Your task to perform on an android device: toggle translation in the chrome app Image 0: 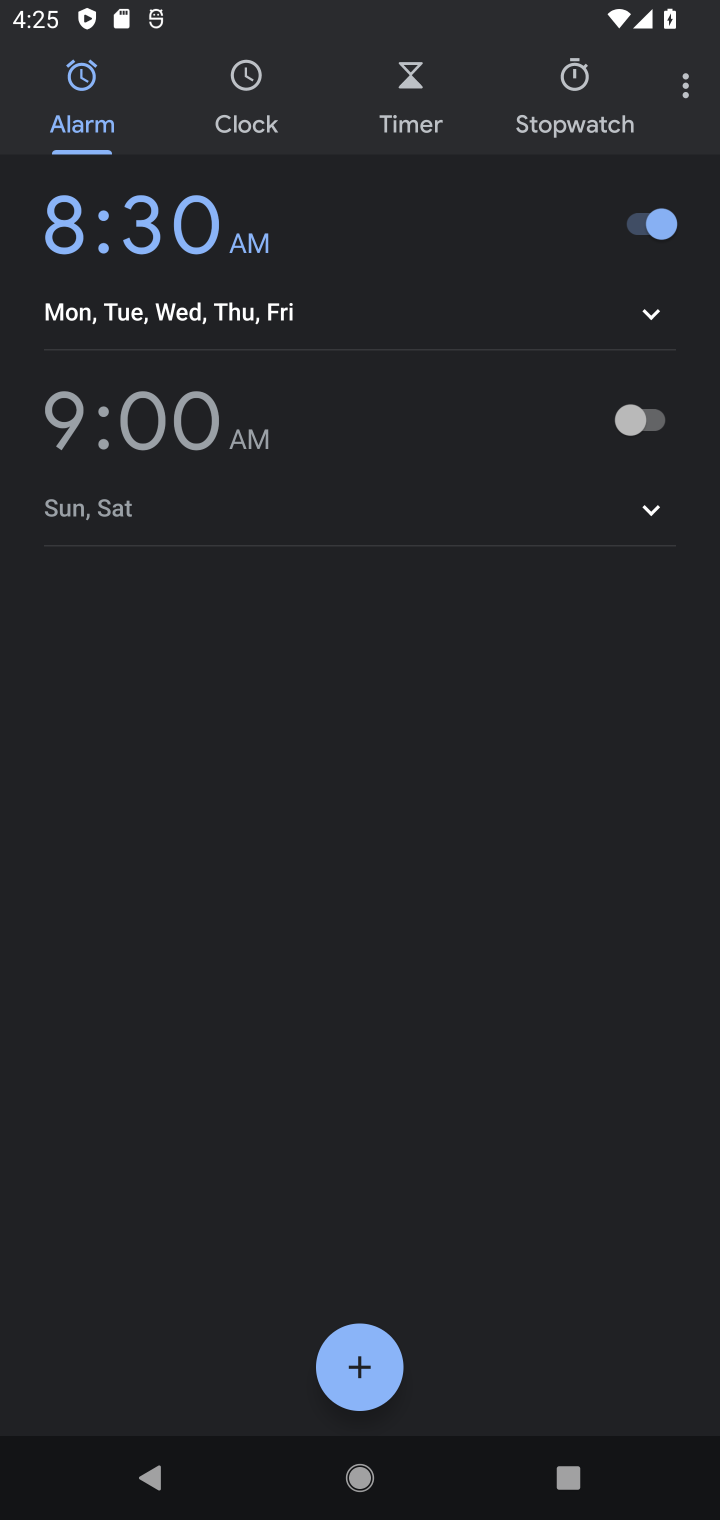
Step 0: press back button
Your task to perform on an android device: toggle translation in the chrome app Image 1: 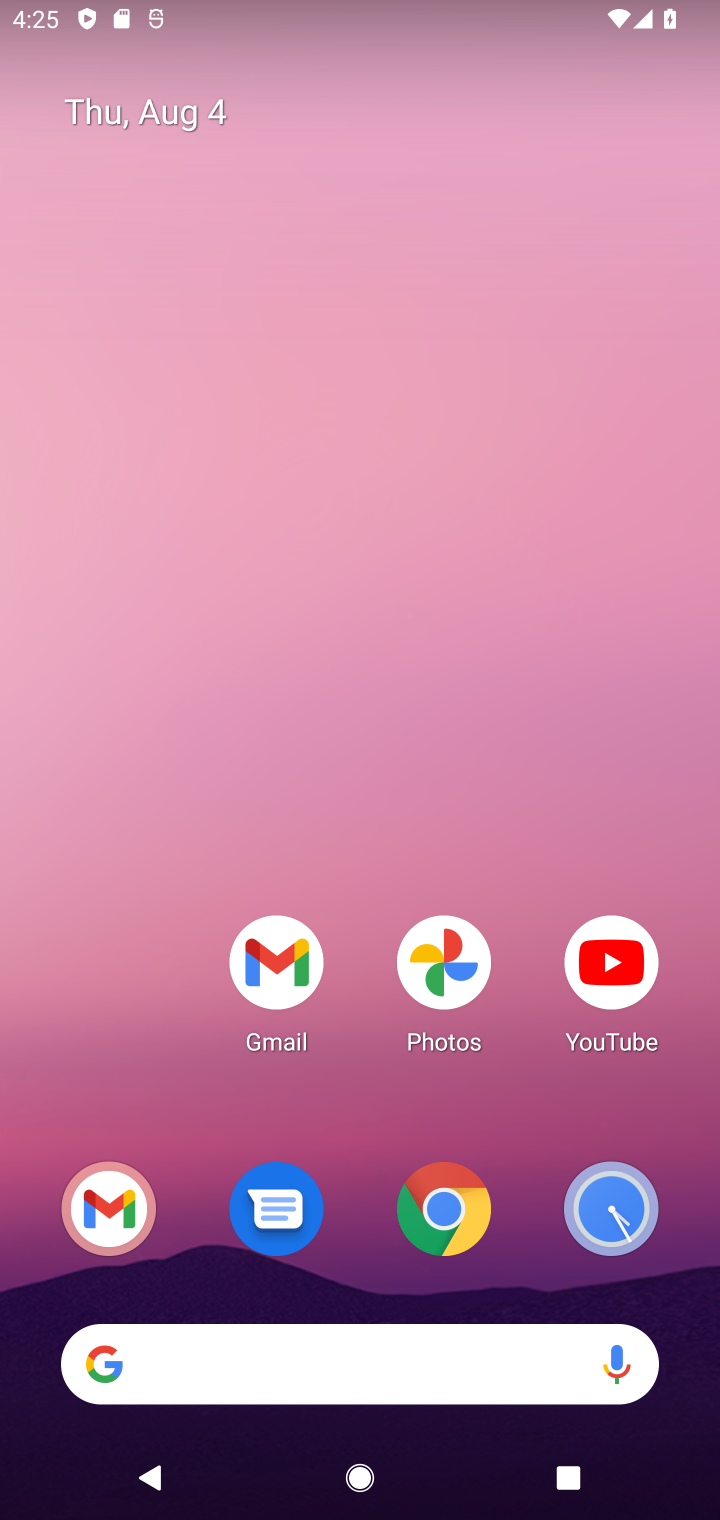
Step 1: click (436, 1229)
Your task to perform on an android device: toggle translation in the chrome app Image 2: 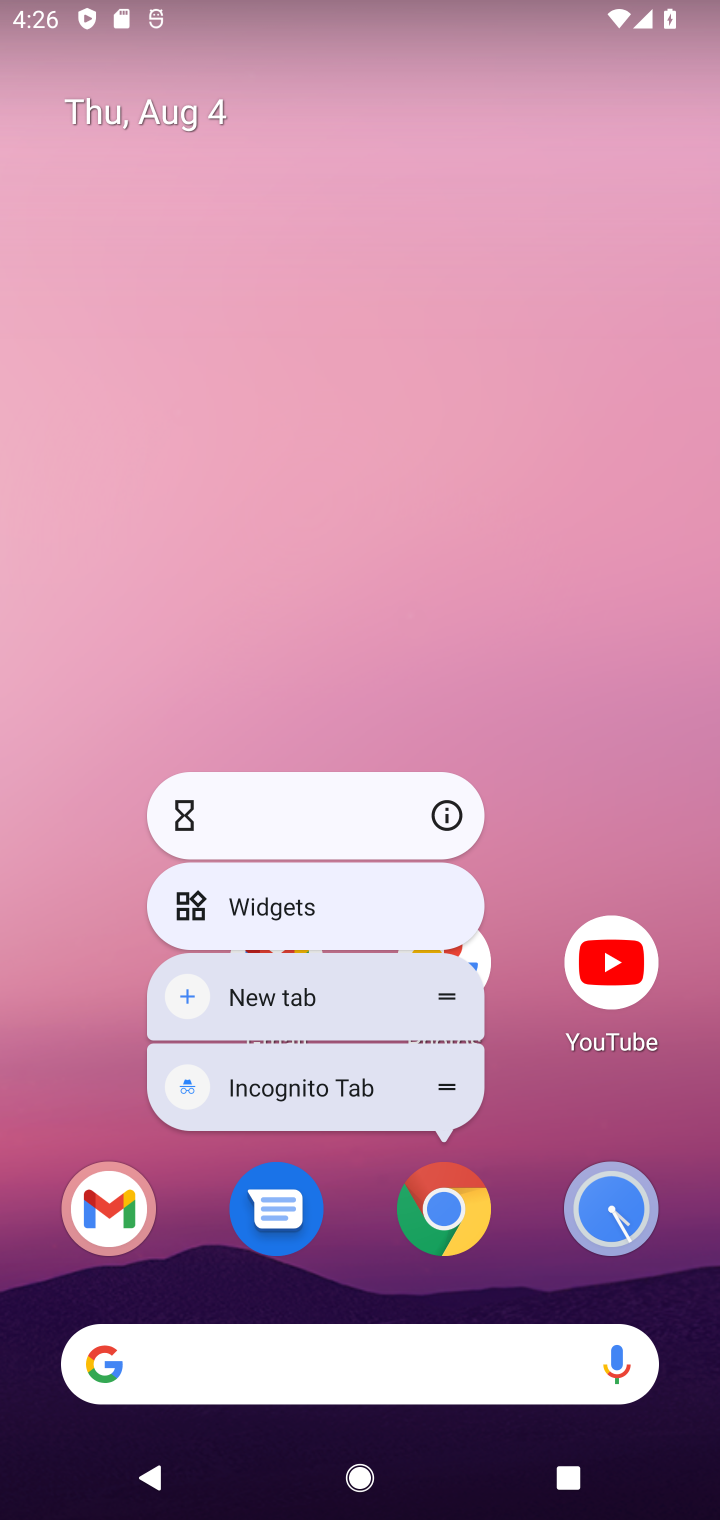
Step 2: click (436, 1209)
Your task to perform on an android device: toggle translation in the chrome app Image 3: 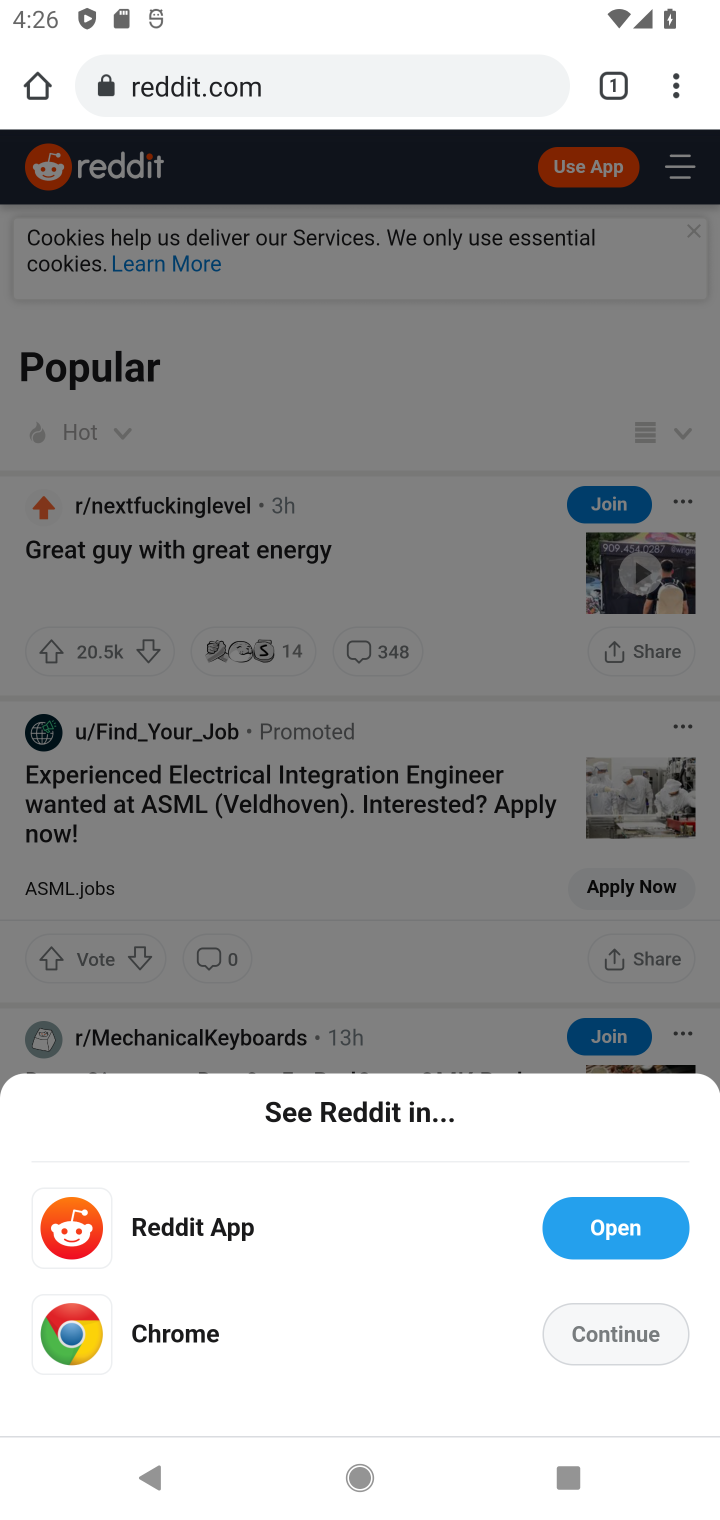
Step 3: click (605, 1332)
Your task to perform on an android device: toggle translation in the chrome app Image 4: 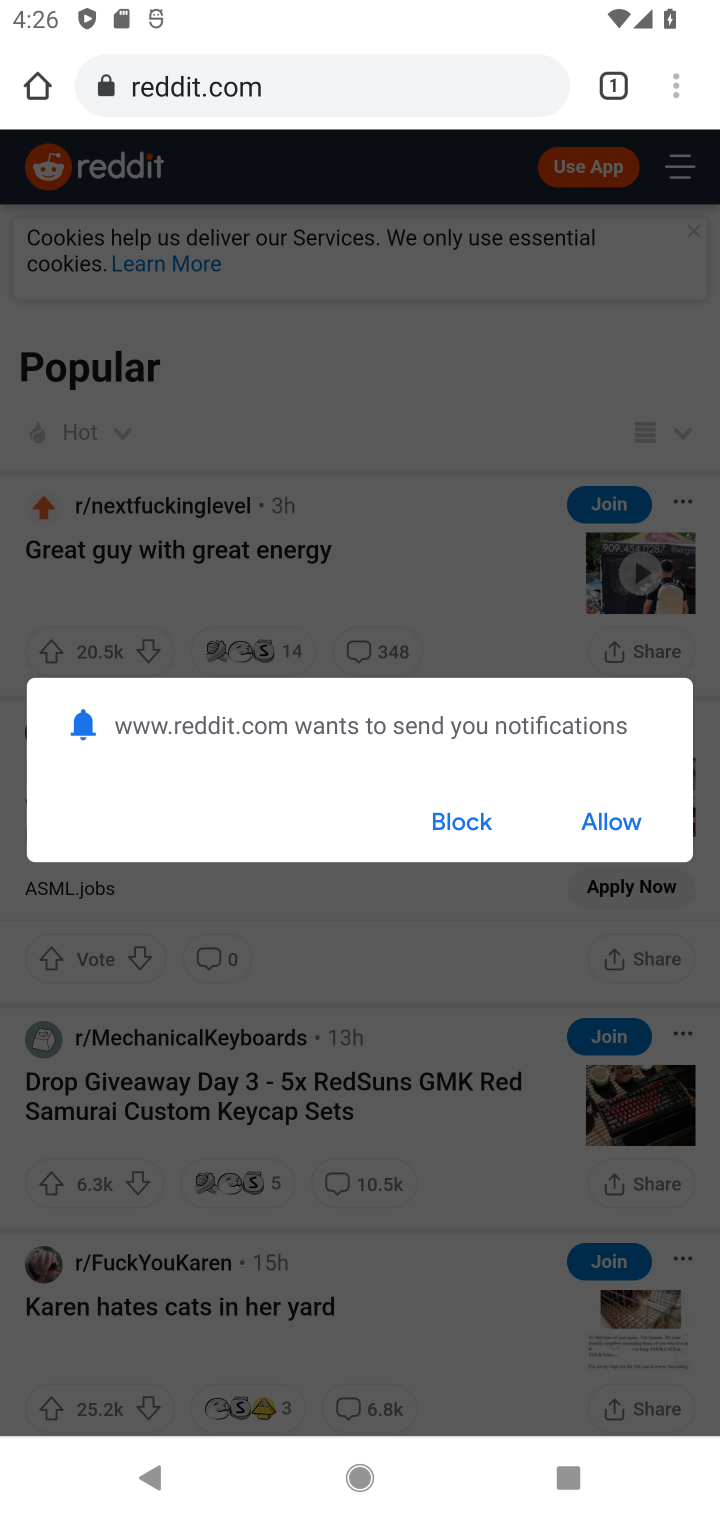
Step 4: click (606, 821)
Your task to perform on an android device: toggle translation in the chrome app Image 5: 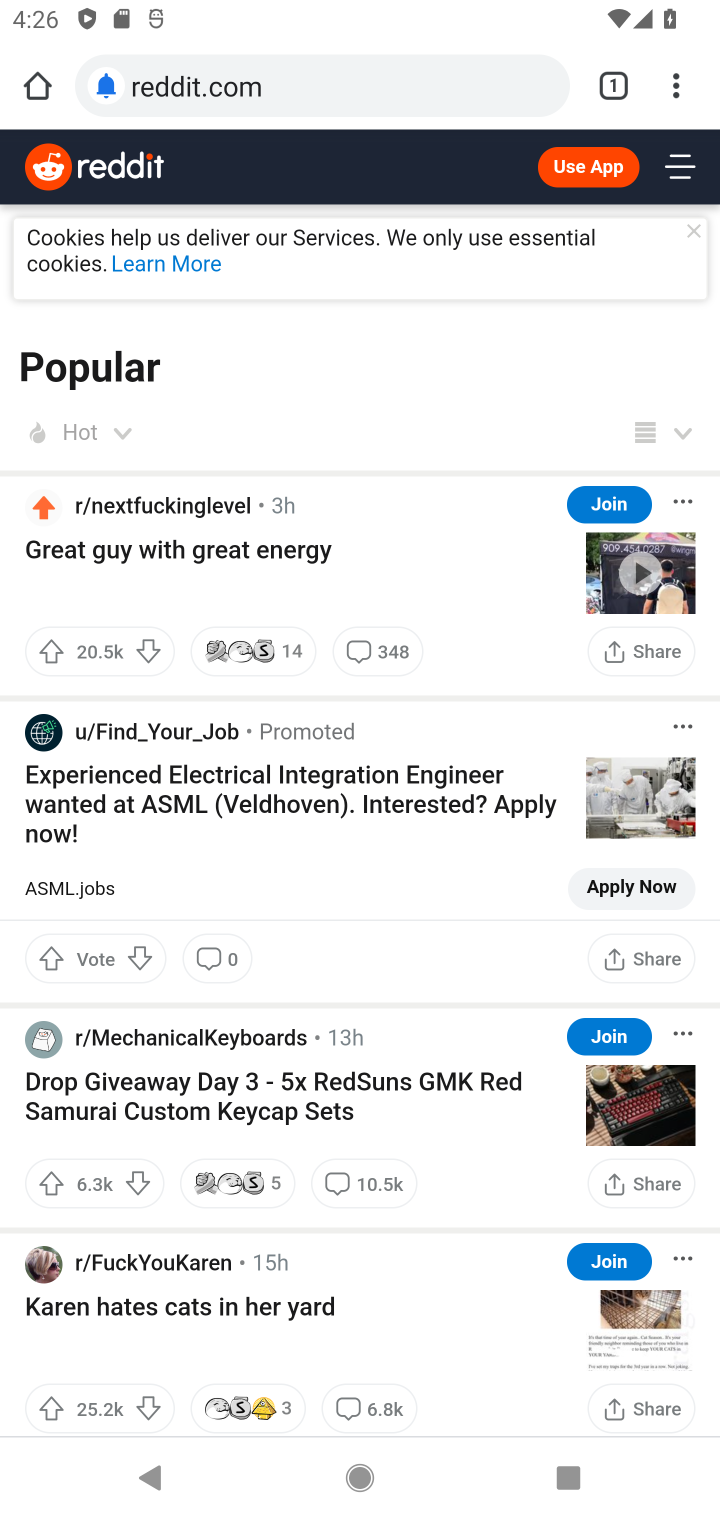
Step 5: click (669, 97)
Your task to perform on an android device: toggle translation in the chrome app Image 6: 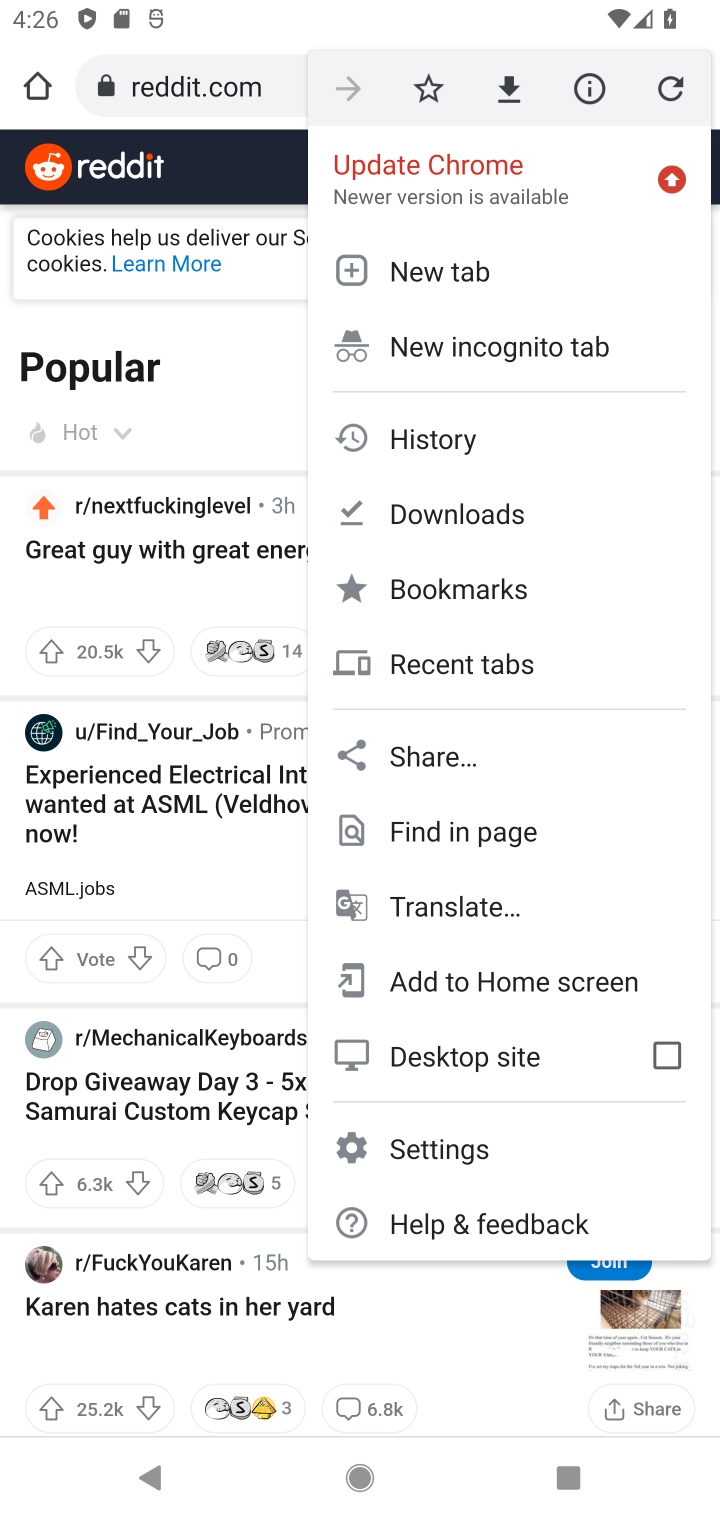
Step 6: click (433, 1146)
Your task to perform on an android device: toggle translation in the chrome app Image 7: 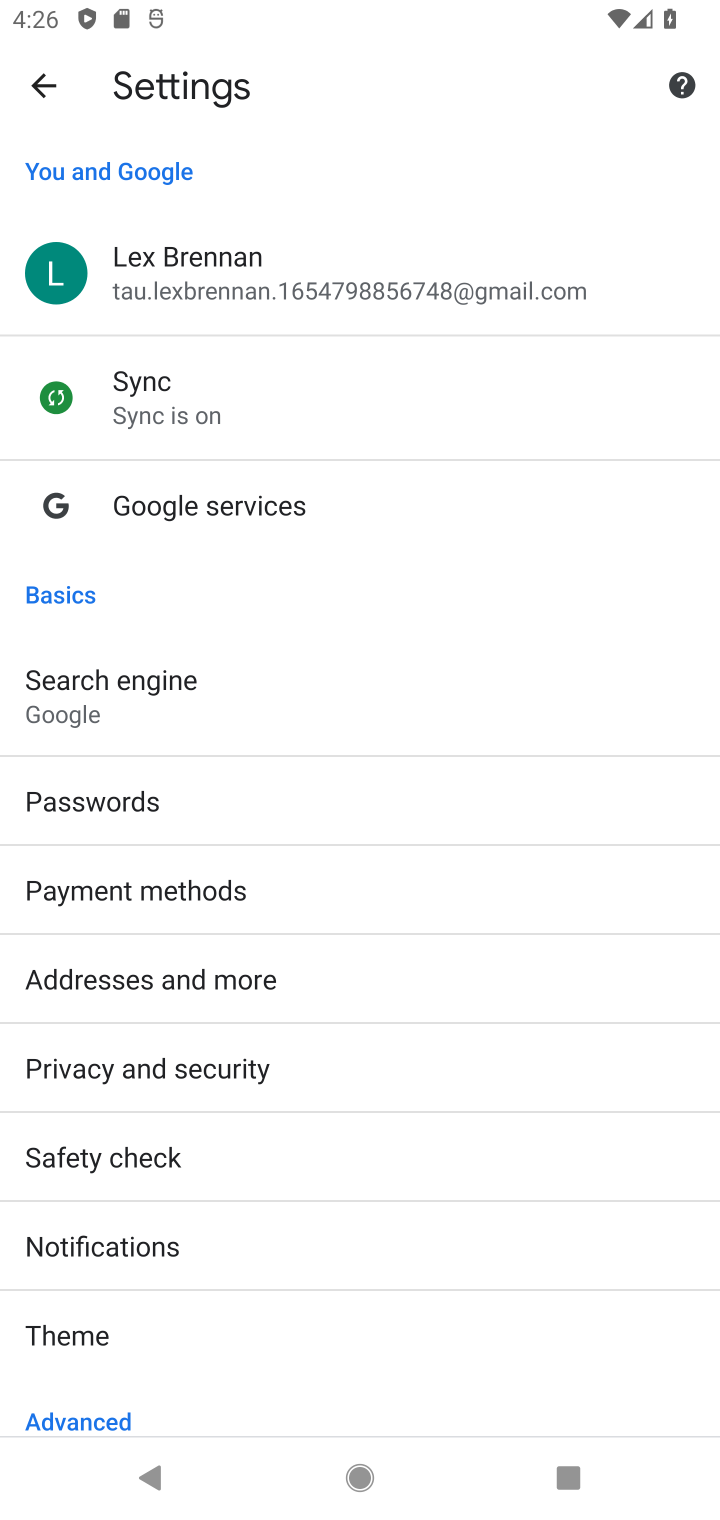
Step 7: drag from (175, 1132) to (195, 850)
Your task to perform on an android device: toggle translation in the chrome app Image 8: 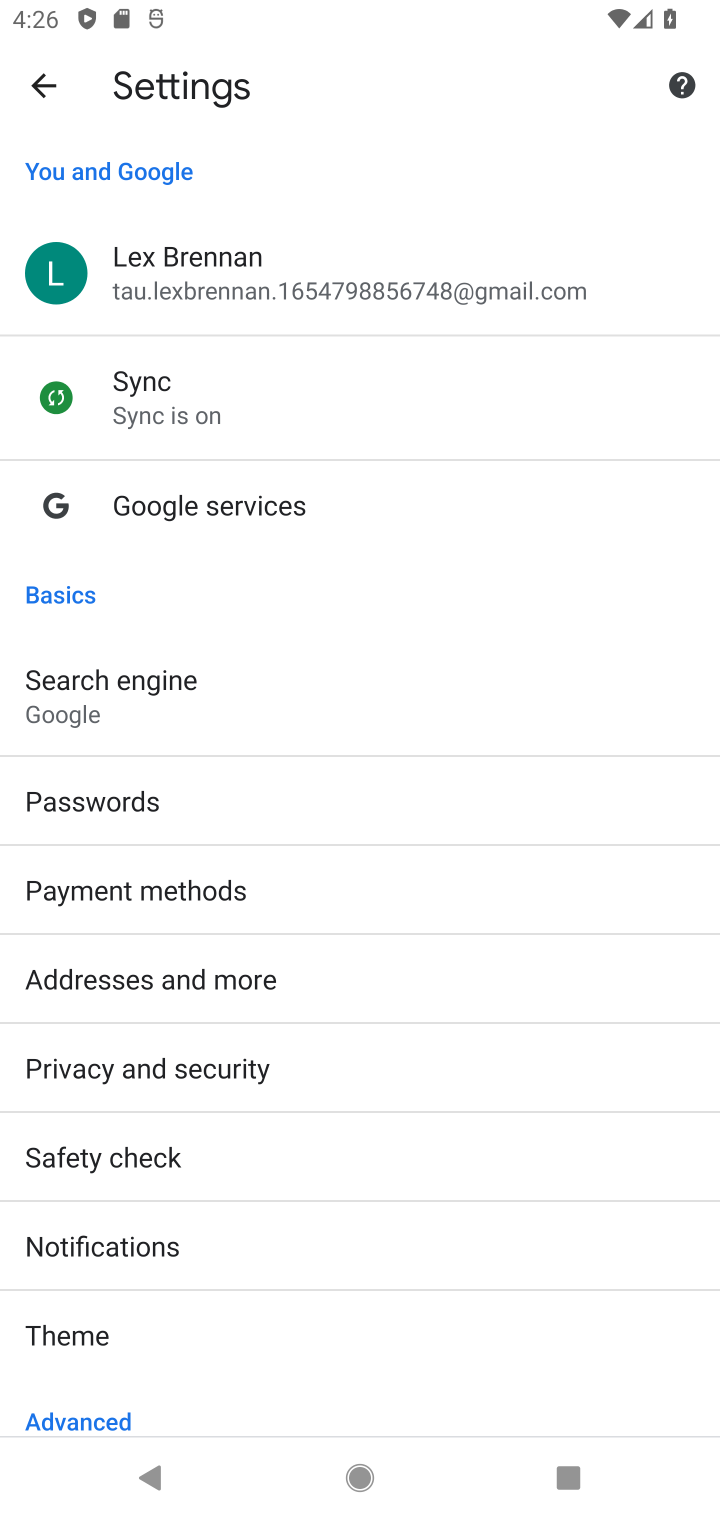
Step 8: drag from (180, 1319) to (378, 614)
Your task to perform on an android device: toggle translation in the chrome app Image 9: 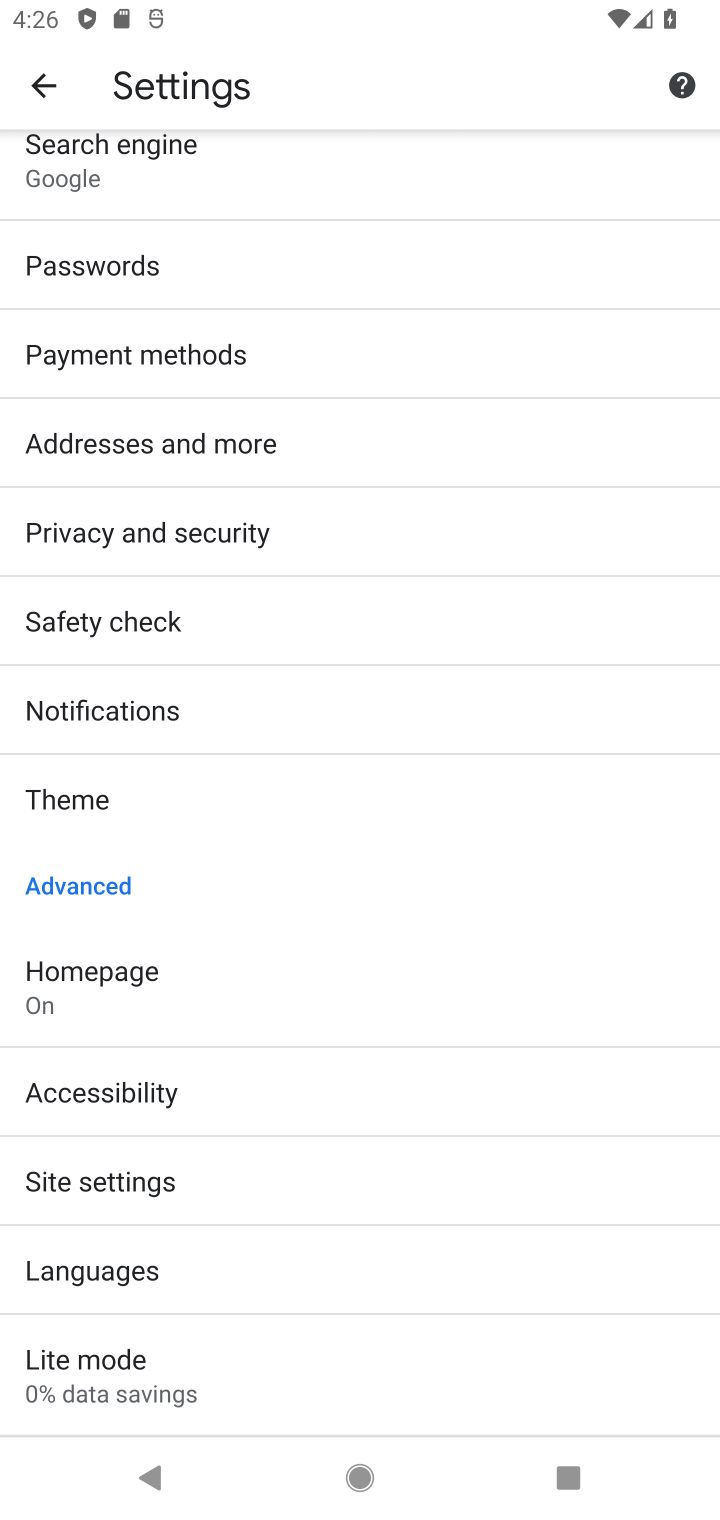
Step 9: click (108, 1286)
Your task to perform on an android device: toggle translation in the chrome app Image 10: 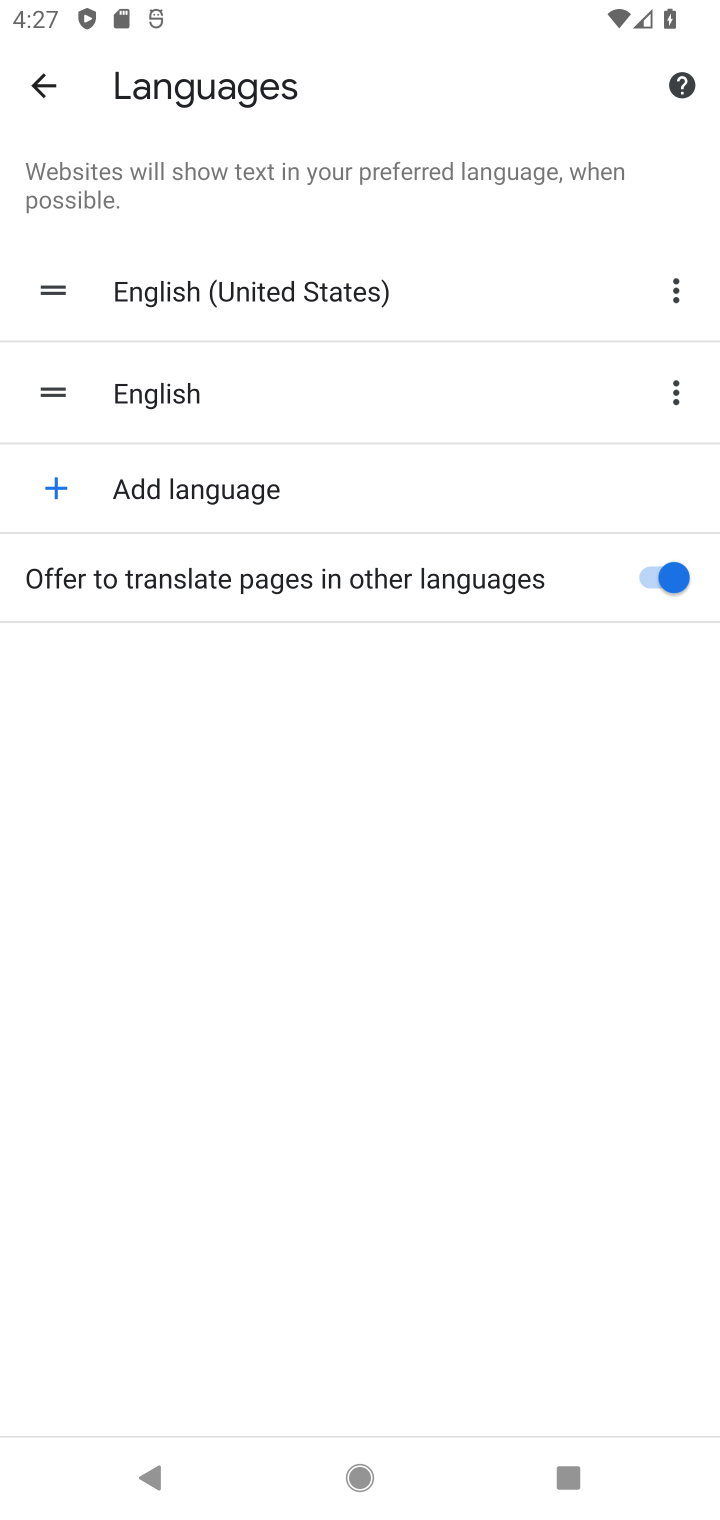
Step 10: click (655, 583)
Your task to perform on an android device: toggle translation in the chrome app Image 11: 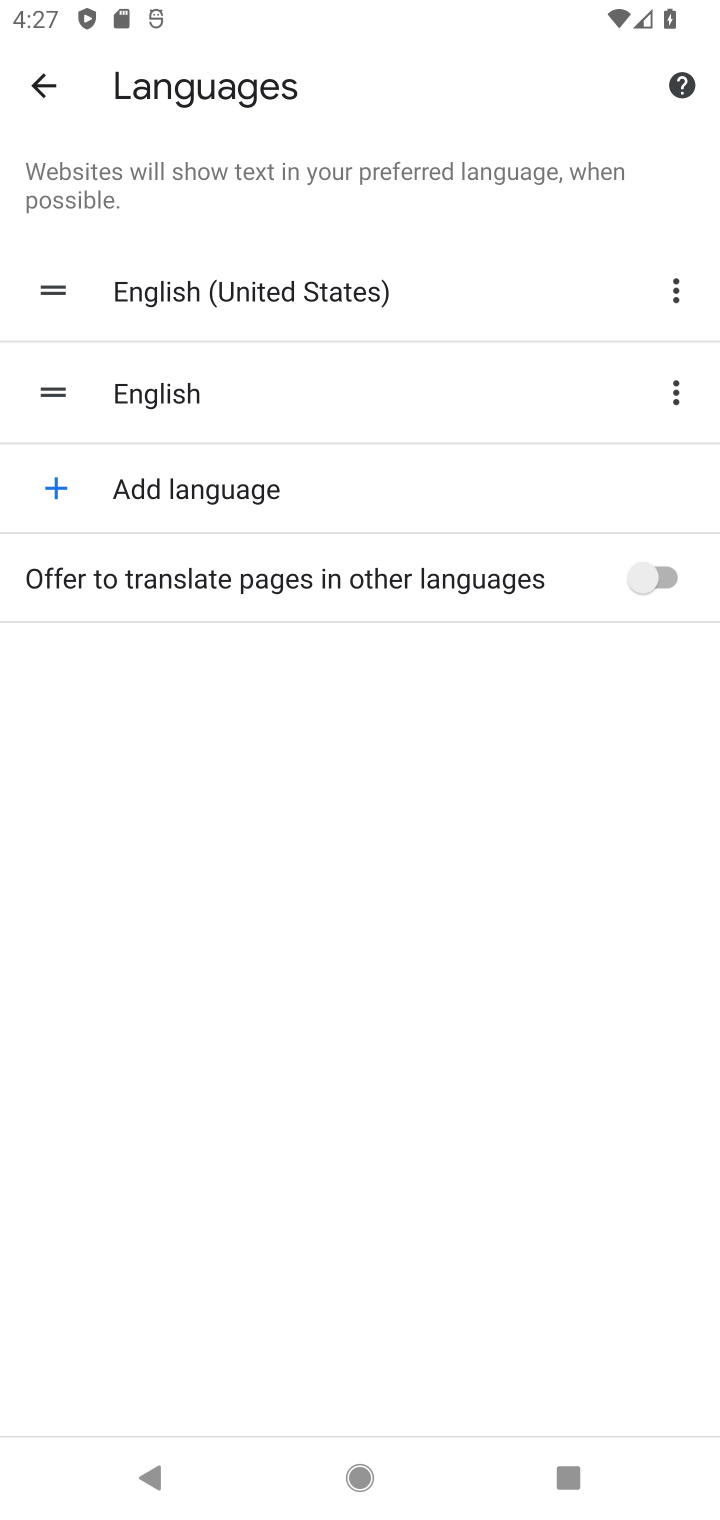
Step 11: task complete